Your task to perform on an android device: toggle notifications settings in the gmail app Image 0: 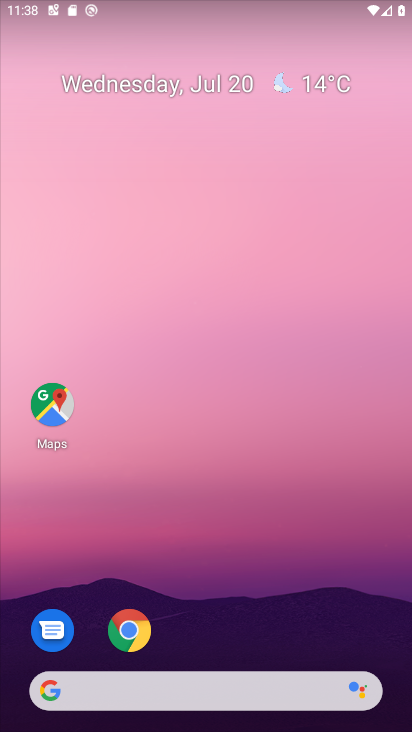
Step 0: drag from (222, 678) to (120, 57)
Your task to perform on an android device: toggle notifications settings in the gmail app Image 1: 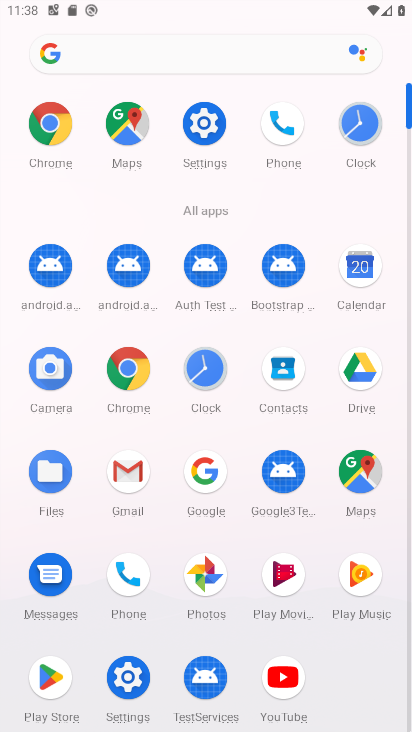
Step 1: click (138, 475)
Your task to perform on an android device: toggle notifications settings in the gmail app Image 2: 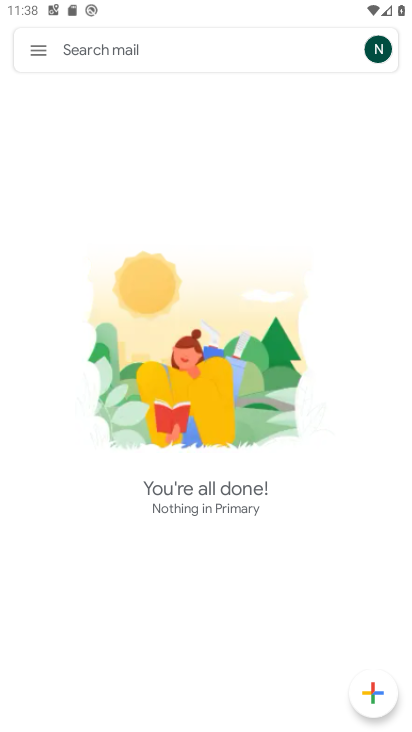
Step 2: click (40, 39)
Your task to perform on an android device: toggle notifications settings in the gmail app Image 3: 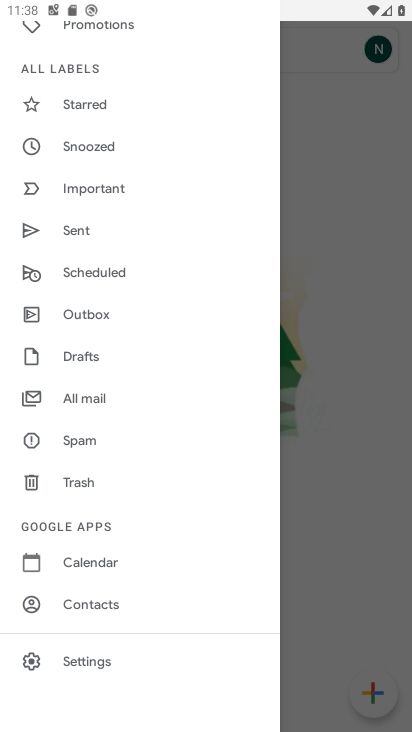
Step 3: click (63, 641)
Your task to perform on an android device: toggle notifications settings in the gmail app Image 4: 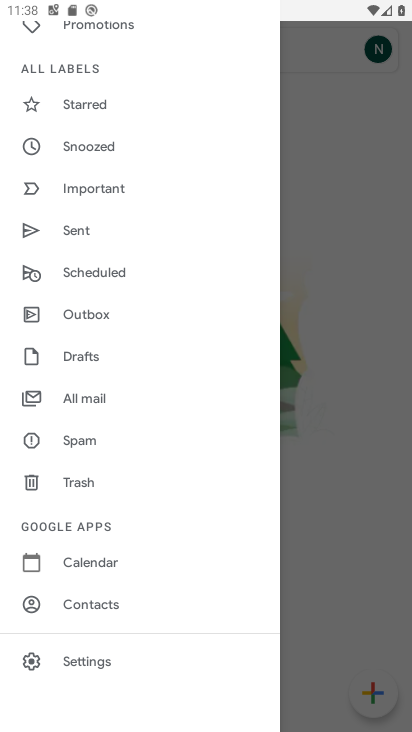
Step 4: click (76, 660)
Your task to perform on an android device: toggle notifications settings in the gmail app Image 5: 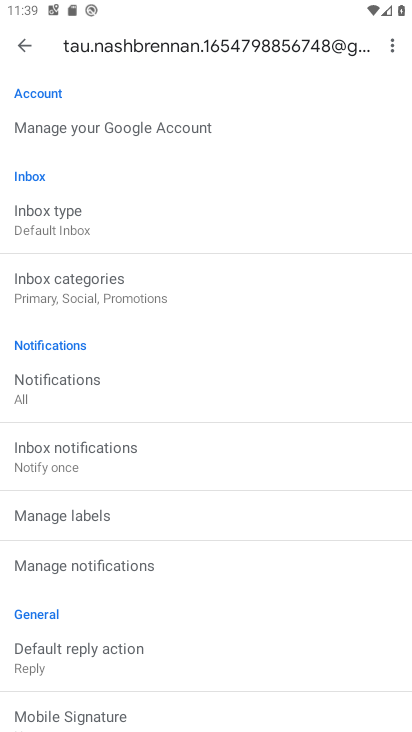
Step 5: click (70, 553)
Your task to perform on an android device: toggle notifications settings in the gmail app Image 6: 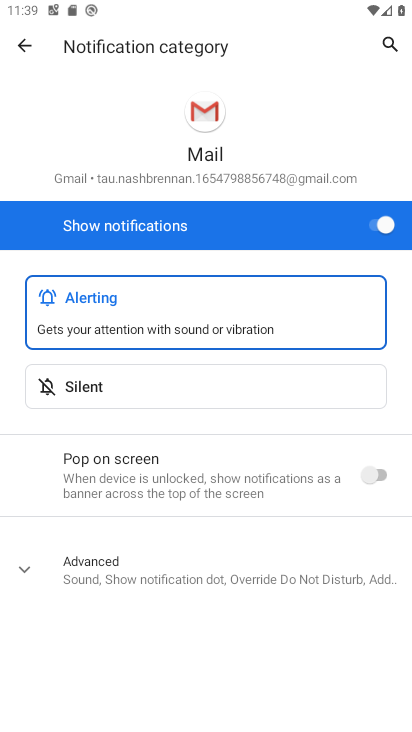
Step 6: click (375, 230)
Your task to perform on an android device: toggle notifications settings in the gmail app Image 7: 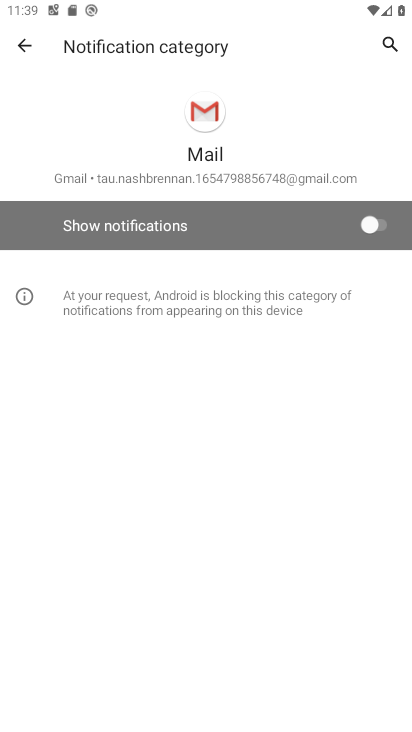
Step 7: task complete